Your task to perform on an android device: uninstall "Life360: Find Family & Friends" Image 0: 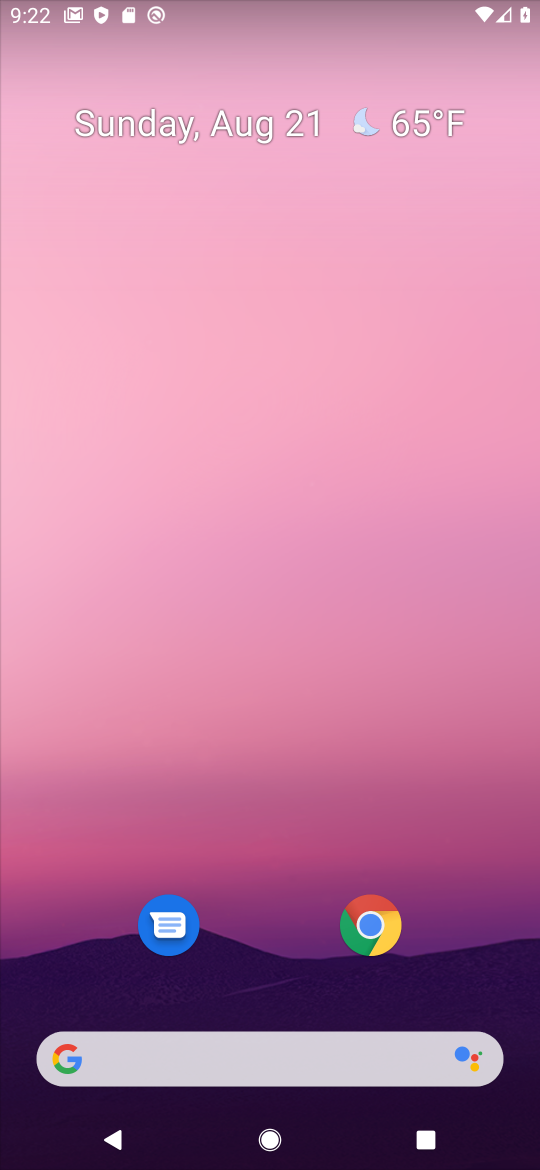
Step 0: drag from (239, 751) to (239, 0)
Your task to perform on an android device: uninstall "Life360: Find Family & Friends" Image 1: 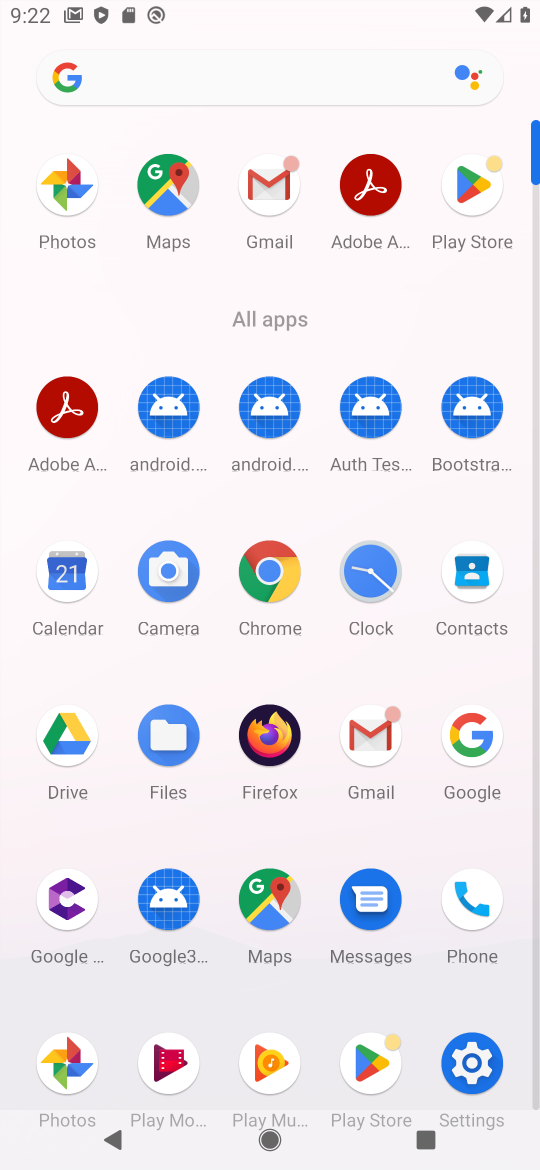
Step 1: click (477, 188)
Your task to perform on an android device: uninstall "Life360: Find Family & Friends" Image 2: 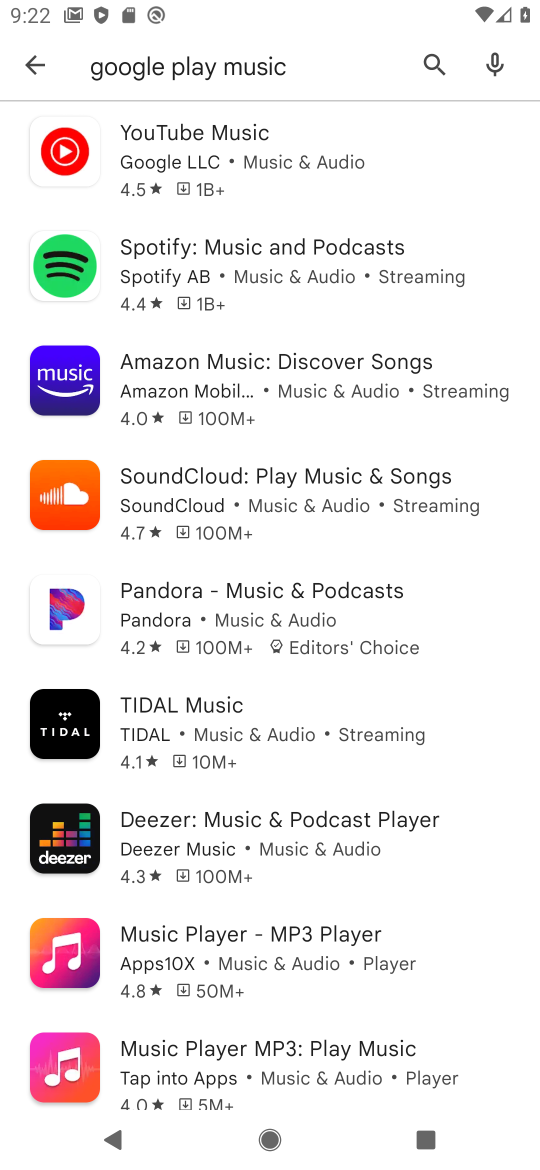
Step 2: click (429, 60)
Your task to perform on an android device: uninstall "Life360: Find Family & Friends" Image 3: 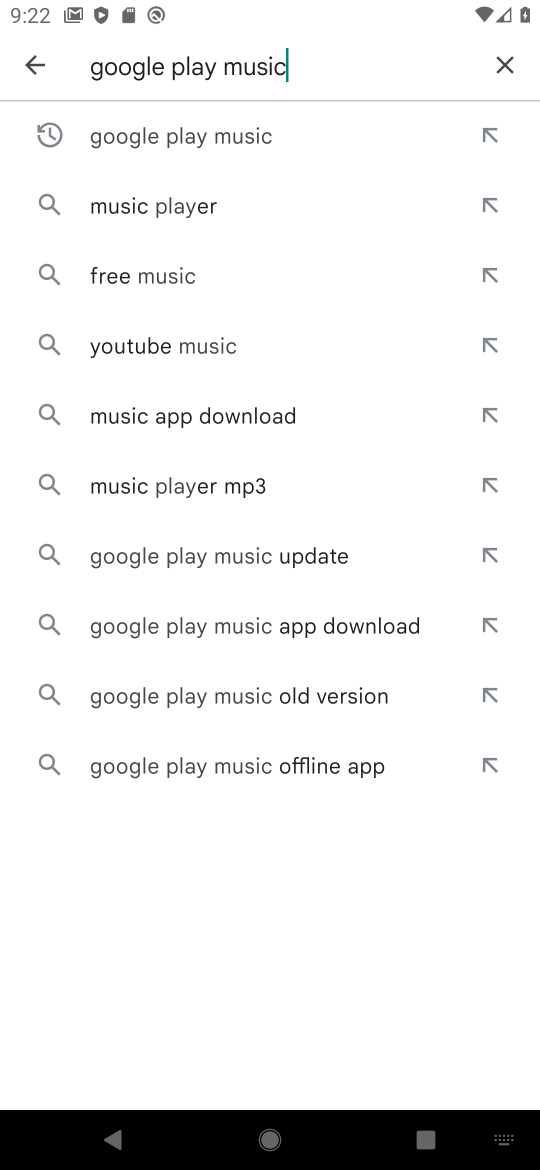
Step 3: click (493, 57)
Your task to perform on an android device: uninstall "Life360: Find Family & Friends" Image 4: 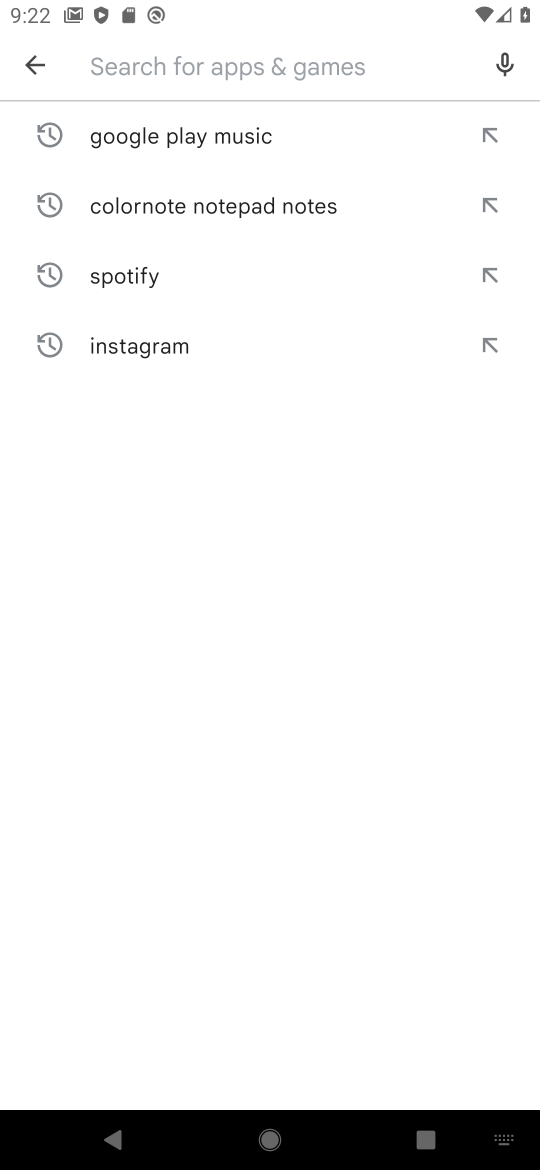
Step 4: click (179, 54)
Your task to perform on an android device: uninstall "Life360: Find Family & Friends" Image 5: 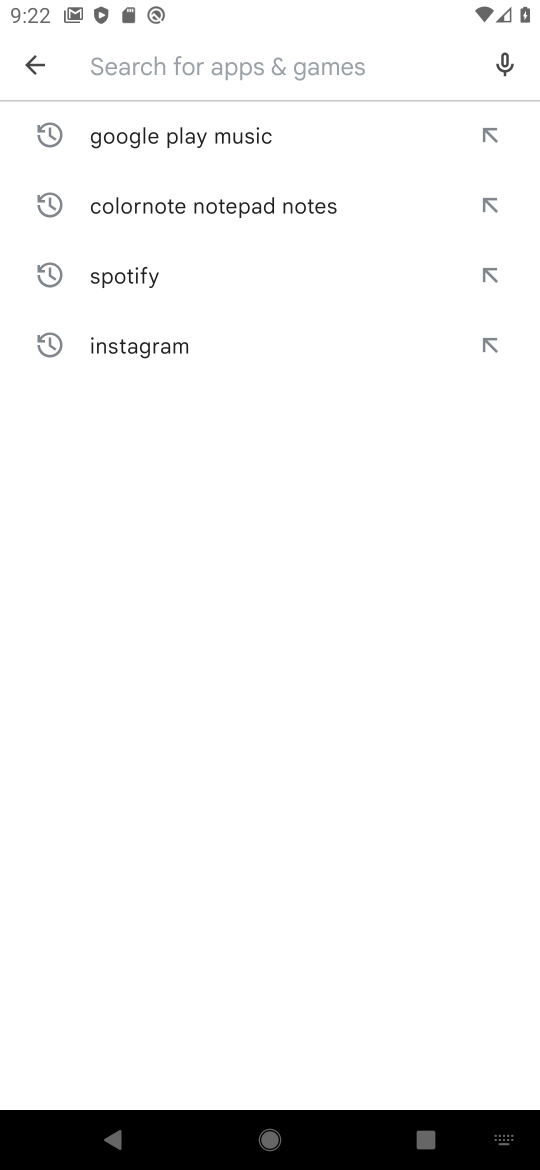
Step 5: type "Life360"
Your task to perform on an android device: uninstall "Life360: Find Family & Friends" Image 6: 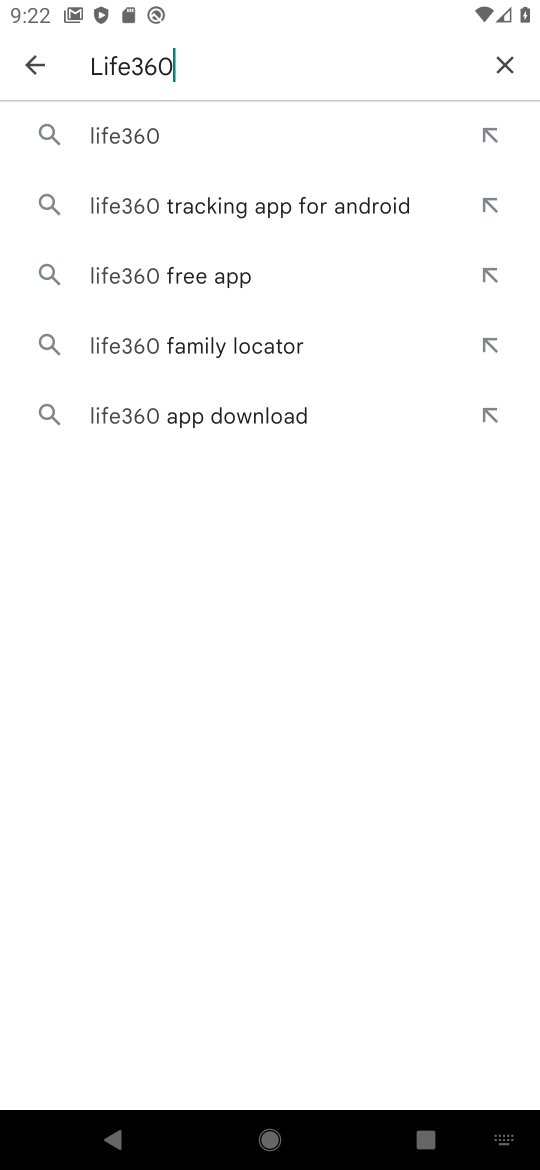
Step 6: click (118, 152)
Your task to perform on an android device: uninstall "Life360: Find Family & Friends" Image 7: 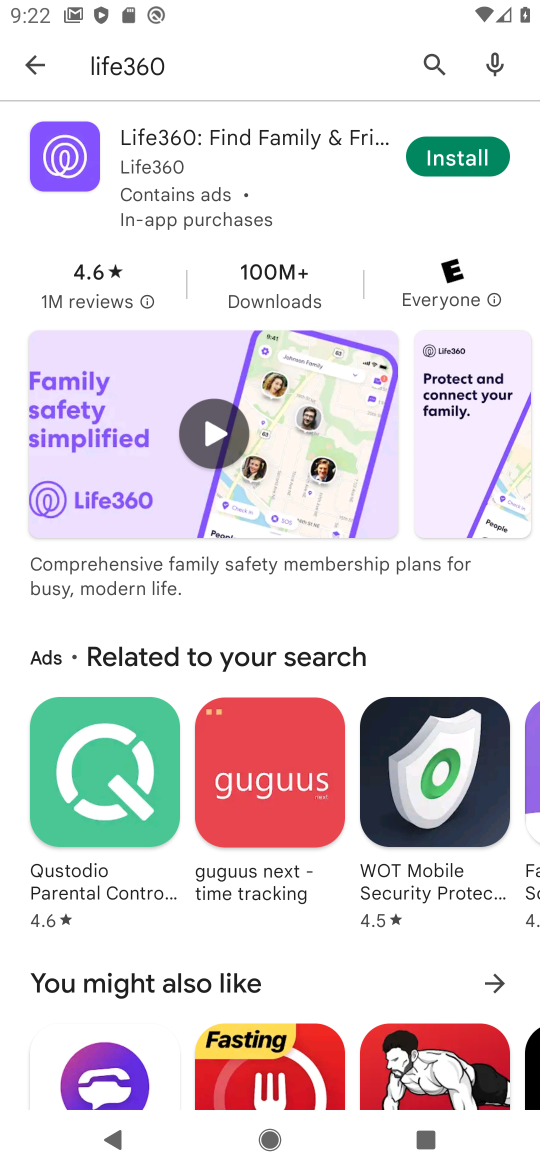
Step 7: click (189, 164)
Your task to perform on an android device: uninstall "Life360: Find Family & Friends" Image 8: 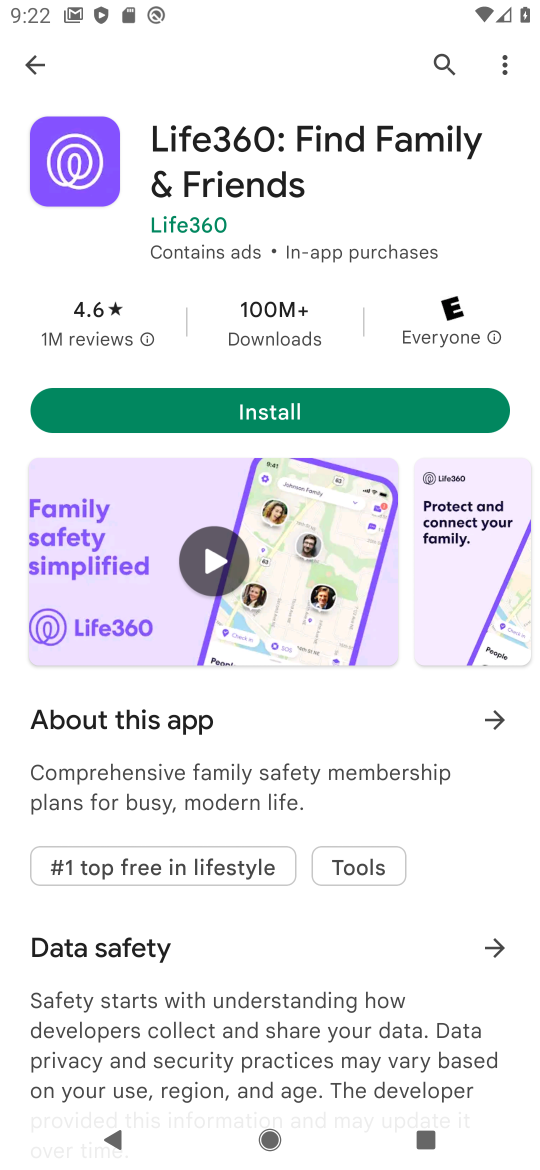
Step 8: task complete